Your task to perform on an android device: Show me recent news Image 0: 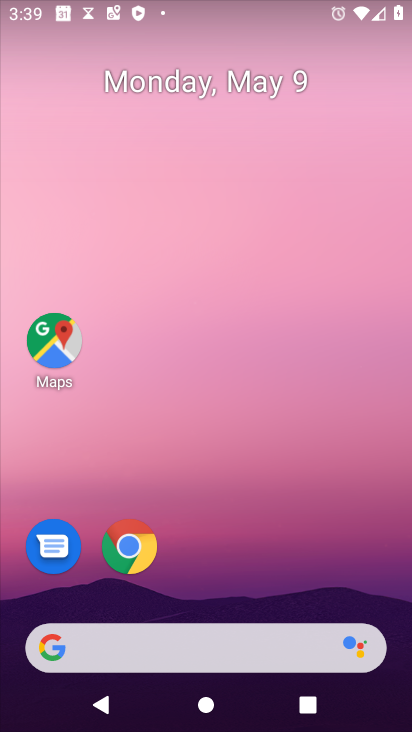
Step 0: drag from (316, 525) to (260, 104)
Your task to perform on an android device: Show me recent news Image 1: 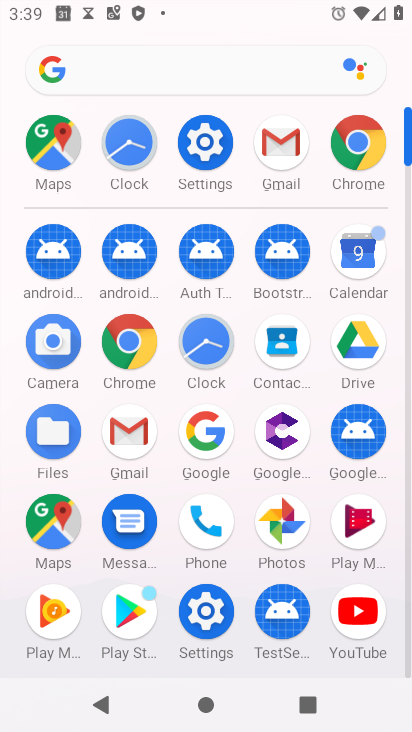
Step 1: click (367, 167)
Your task to perform on an android device: Show me recent news Image 2: 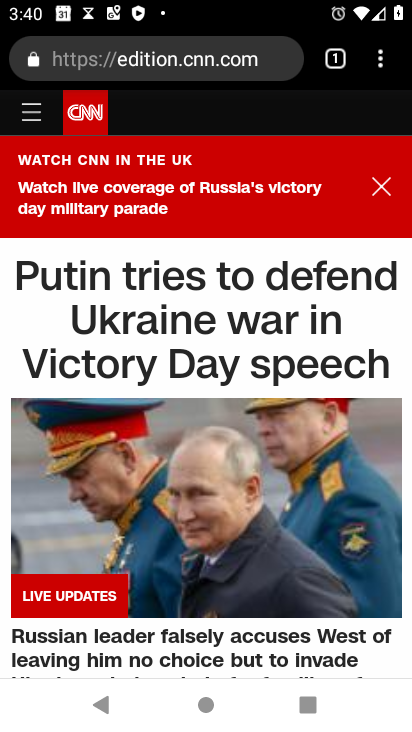
Step 2: task complete